Your task to perform on an android device: allow cookies in the chrome app Image 0: 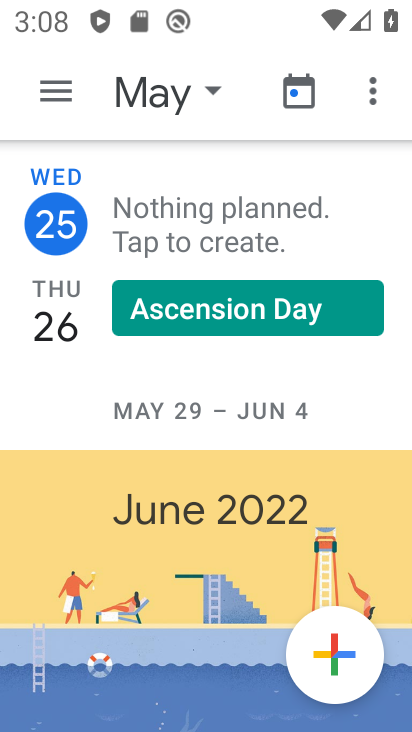
Step 0: drag from (71, 602) to (269, 3)
Your task to perform on an android device: allow cookies in the chrome app Image 1: 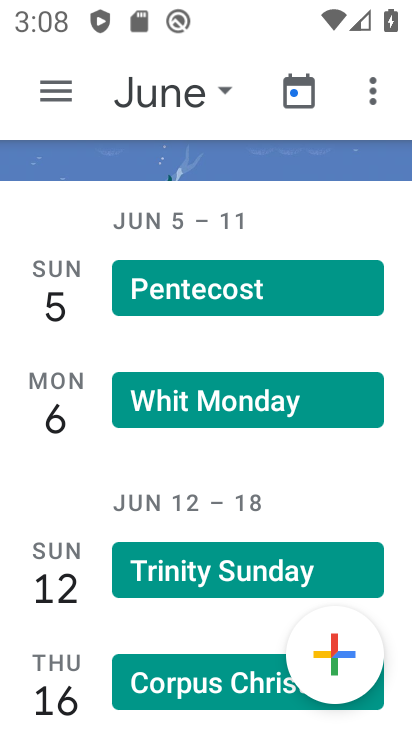
Step 1: press home button
Your task to perform on an android device: allow cookies in the chrome app Image 2: 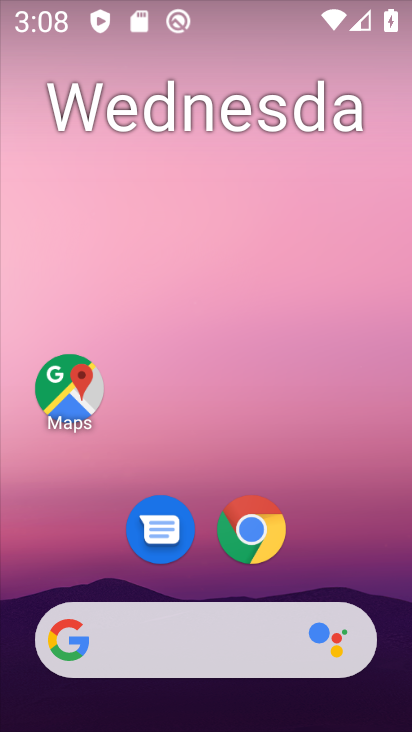
Step 2: click (244, 536)
Your task to perform on an android device: allow cookies in the chrome app Image 3: 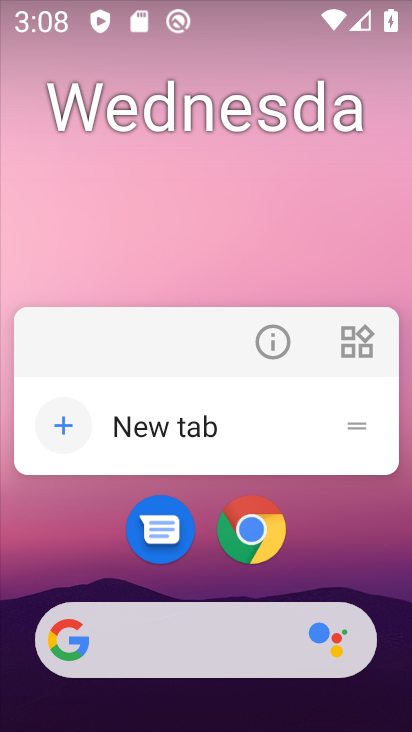
Step 3: click (256, 544)
Your task to perform on an android device: allow cookies in the chrome app Image 4: 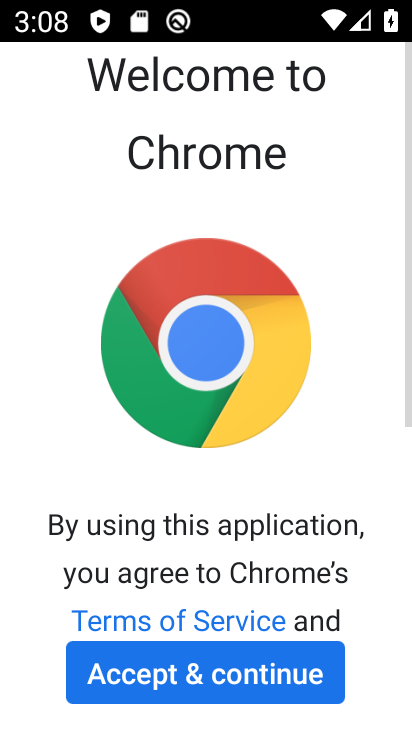
Step 4: click (236, 679)
Your task to perform on an android device: allow cookies in the chrome app Image 5: 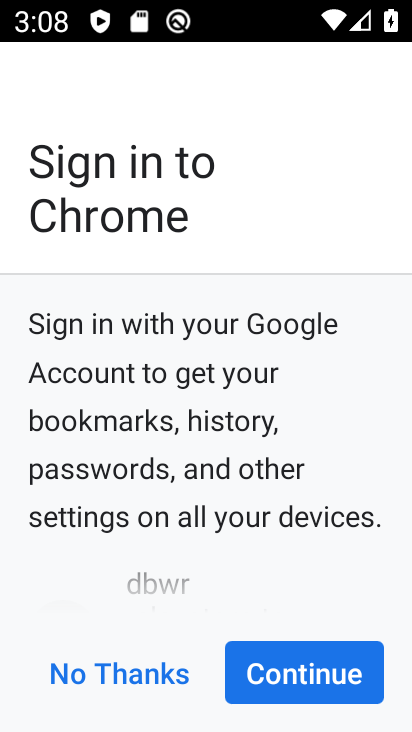
Step 5: click (286, 678)
Your task to perform on an android device: allow cookies in the chrome app Image 6: 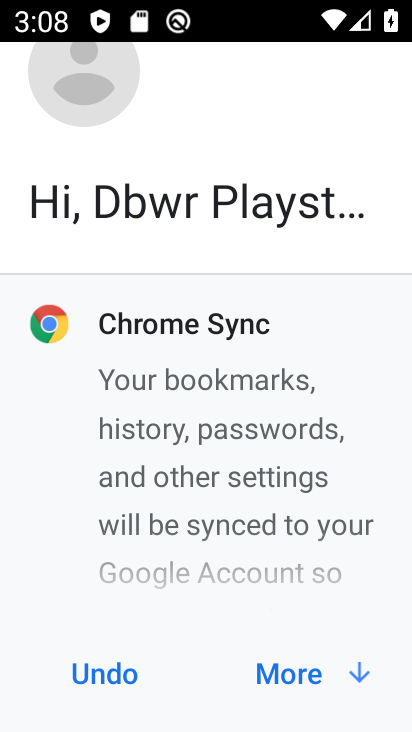
Step 6: click (306, 676)
Your task to perform on an android device: allow cookies in the chrome app Image 7: 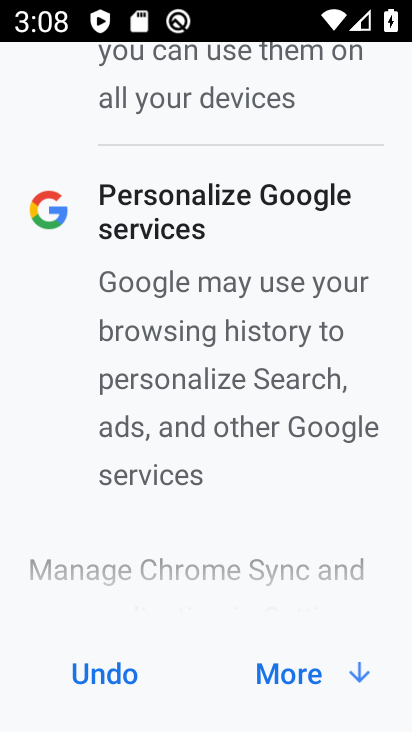
Step 7: click (306, 676)
Your task to perform on an android device: allow cookies in the chrome app Image 8: 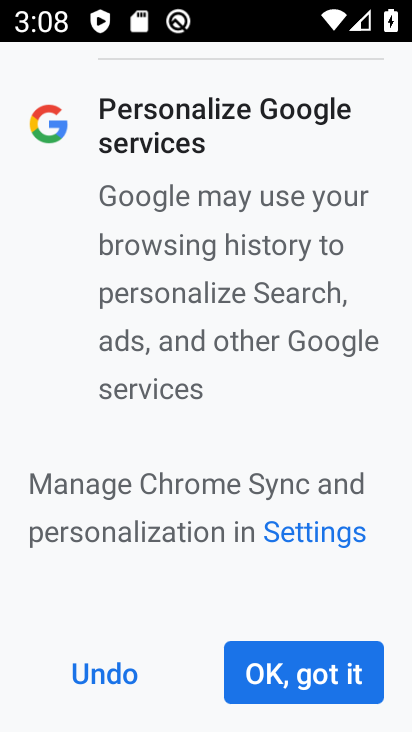
Step 8: click (306, 676)
Your task to perform on an android device: allow cookies in the chrome app Image 9: 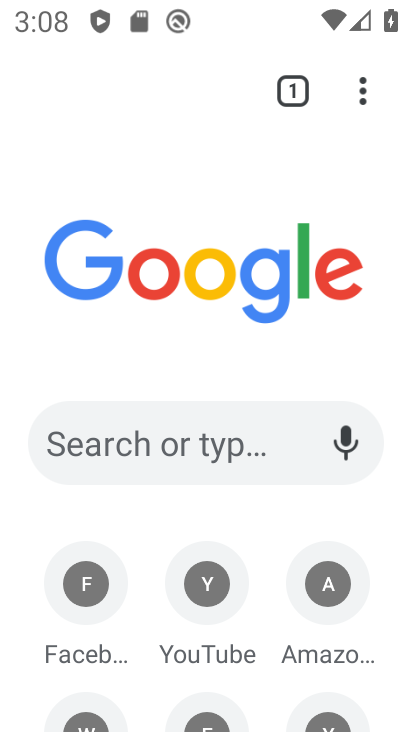
Step 9: drag from (370, 97) to (253, 555)
Your task to perform on an android device: allow cookies in the chrome app Image 10: 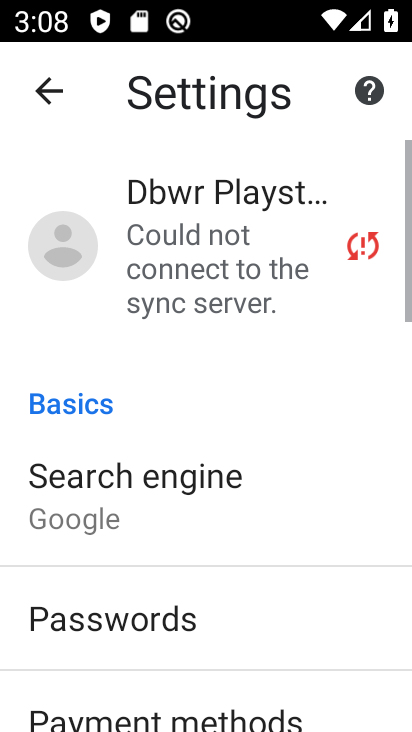
Step 10: drag from (212, 625) to (339, 144)
Your task to perform on an android device: allow cookies in the chrome app Image 11: 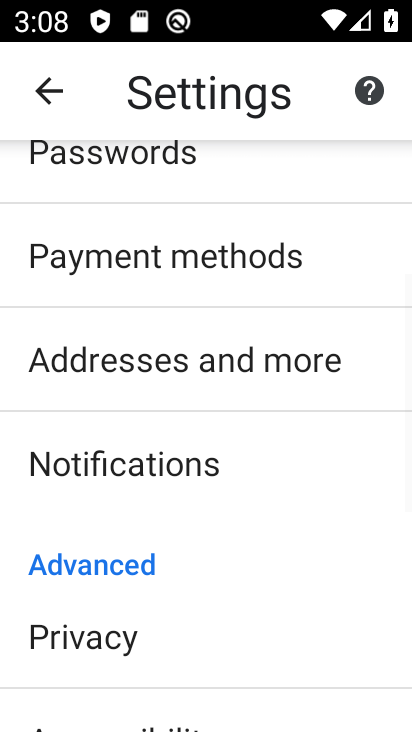
Step 11: drag from (171, 671) to (273, 236)
Your task to perform on an android device: allow cookies in the chrome app Image 12: 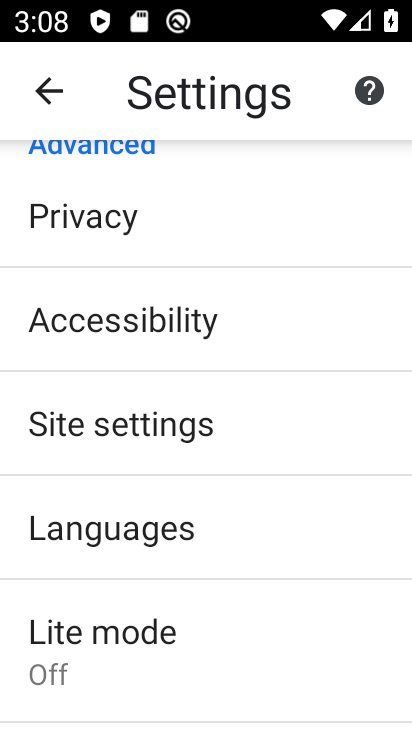
Step 12: click (213, 447)
Your task to perform on an android device: allow cookies in the chrome app Image 13: 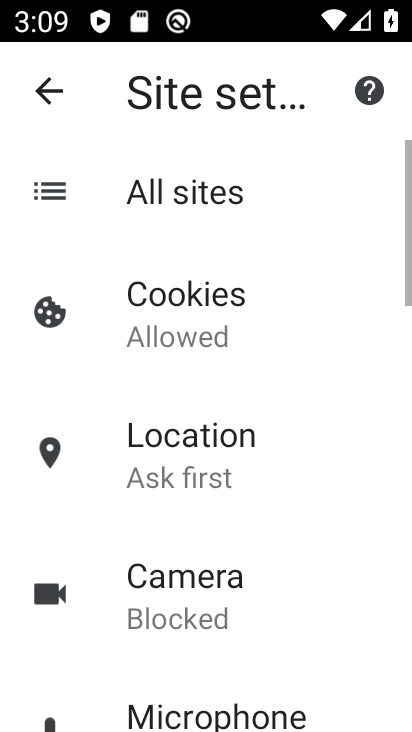
Step 13: drag from (224, 548) to (298, 570)
Your task to perform on an android device: allow cookies in the chrome app Image 14: 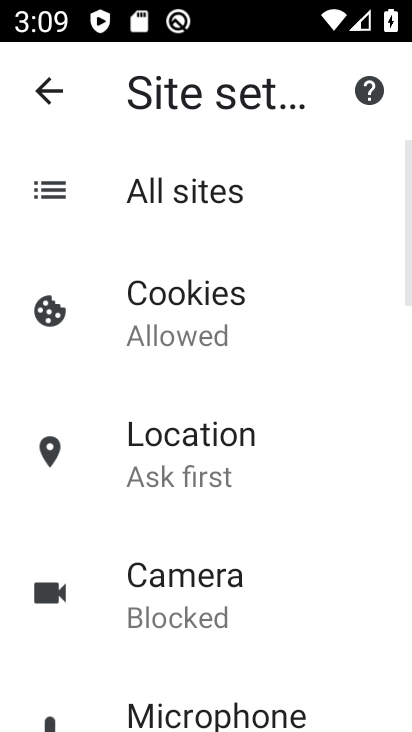
Step 14: click (243, 292)
Your task to perform on an android device: allow cookies in the chrome app Image 15: 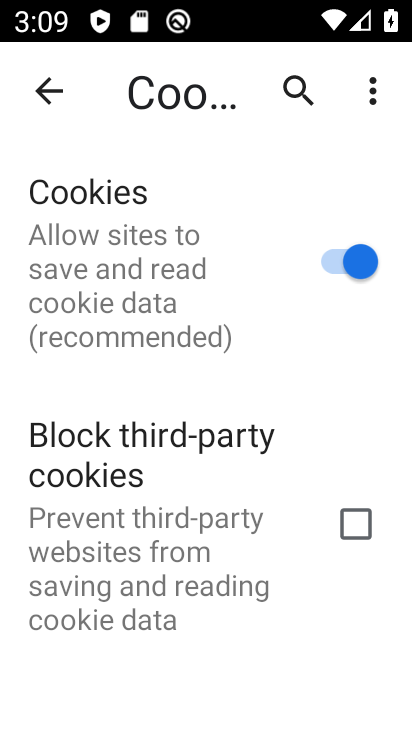
Step 15: task complete